Your task to perform on an android device: Clear the shopping cart on costco. Add panasonic triple a to the cart on costco Image 0: 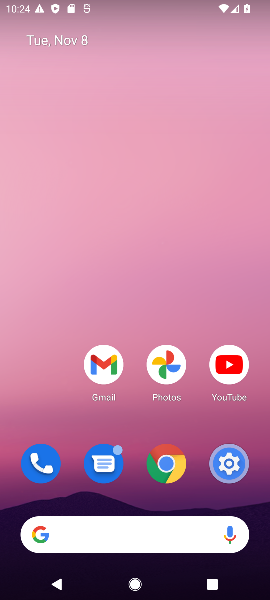
Step 0: click (166, 463)
Your task to perform on an android device: Clear the shopping cart on costco. Add panasonic triple a to the cart on costco Image 1: 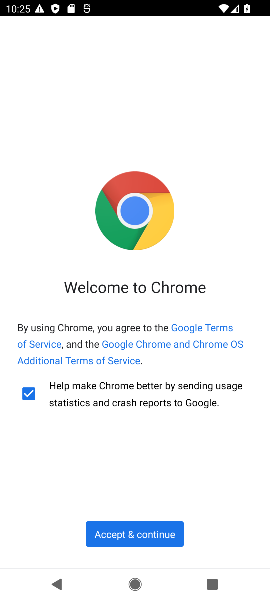
Step 1: click (167, 529)
Your task to perform on an android device: Clear the shopping cart on costco. Add panasonic triple a to the cart on costco Image 2: 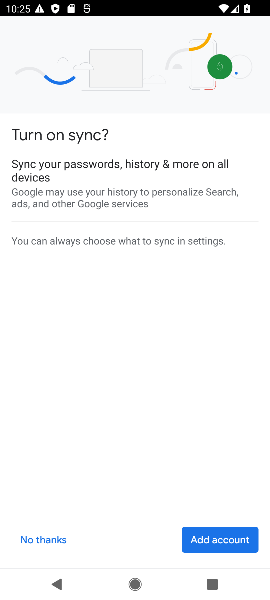
Step 2: click (223, 533)
Your task to perform on an android device: Clear the shopping cart on costco. Add panasonic triple a to the cart on costco Image 3: 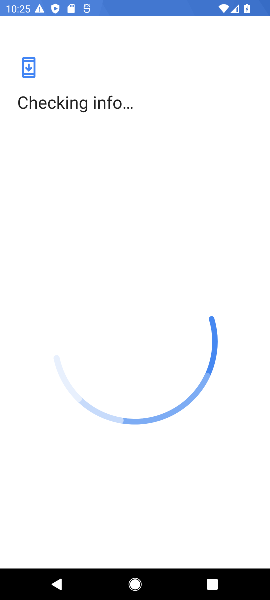
Step 3: press back button
Your task to perform on an android device: Clear the shopping cart on costco. Add panasonic triple a to the cart on costco Image 4: 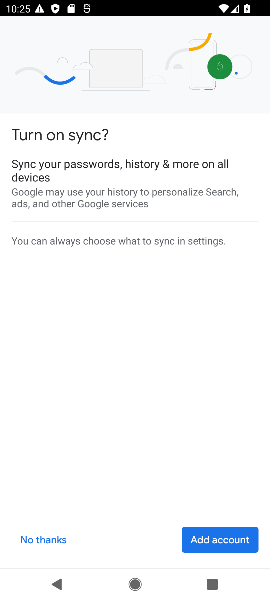
Step 4: click (43, 536)
Your task to perform on an android device: Clear the shopping cart on costco. Add panasonic triple a to the cart on costco Image 5: 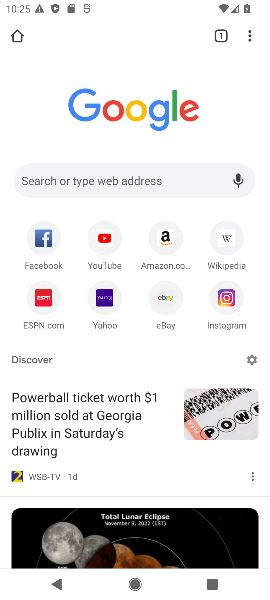
Step 5: click (121, 174)
Your task to perform on an android device: Clear the shopping cart on costco. Add panasonic triple a to the cart on costco Image 6: 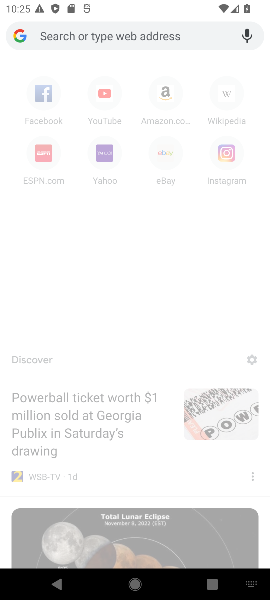
Step 6: type "costco"
Your task to perform on an android device: Clear the shopping cart on costco. Add panasonic triple a to the cart on costco Image 7: 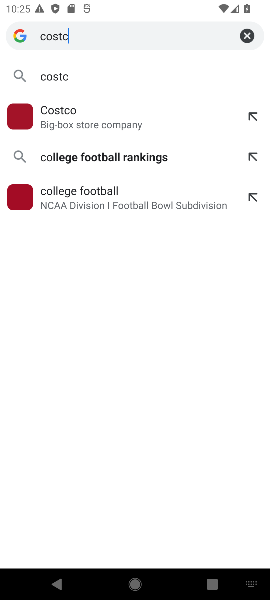
Step 7: press enter
Your task to perform on an android device: Clear the shopping cart on costco. Add panasonic triple a to the cart on costco Image 8: 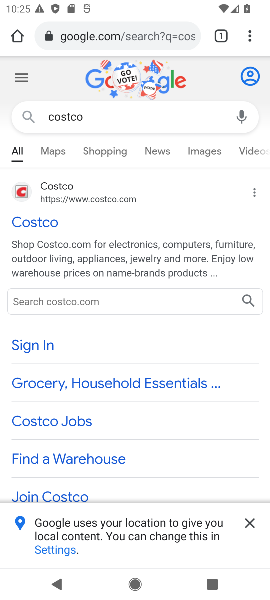
Step 8: click (89, 193)
Your task to perform on an android device: Clear the shopping cart on costco. Add panasonic triple a to the cart on costco Image 9: 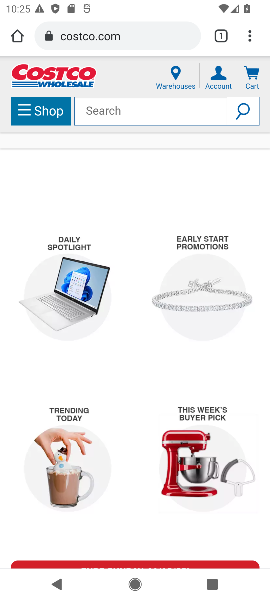
Step 9: click (254, 75)
Your task to perform on an android device: Clear the shopping cart on costco. Add panasonic triple a to the cart on costco Image 10: 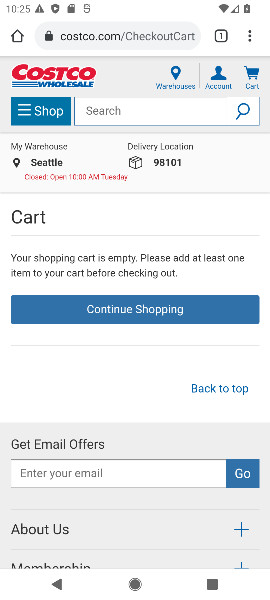
Step 10: click (181, 111)
Your task to perform on an android device: Clear the shopping cart on costco. Add panasonic triple a to the cart on costco Image 11: 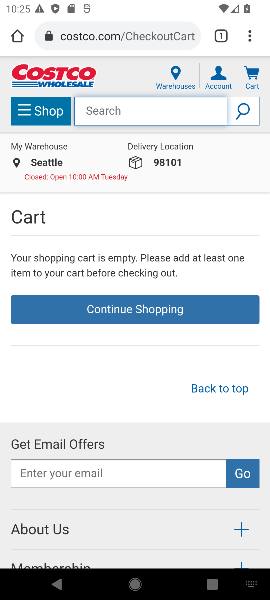
Step 11: type "panasonic triple a"
Your task to perform on an android device: Clear the shopping cart on costco. Add panasonic triple a to the cart on costco Image 12: 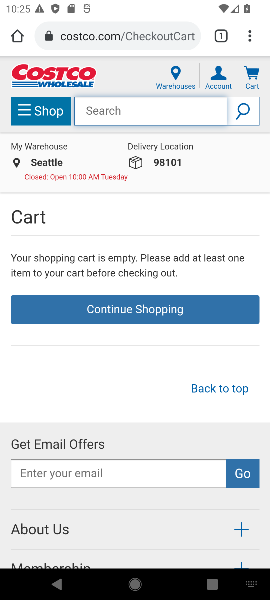
Step 12: press enter
Your task to perform on an android device: Clear the shopping cart on costco. Add panasonic triple a to the cart on costco Image 13: 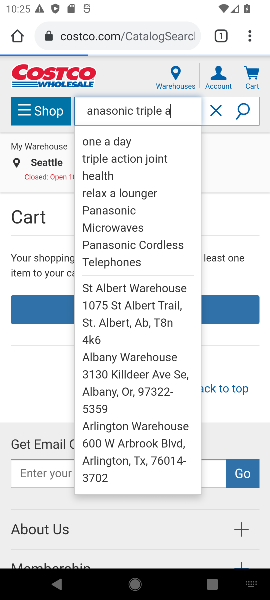
Step 13: click (227, 154)
Your task to perform on an android device: Clear the shopping cart on costco. Add panasonic triple a to the cart on costco Image 14: 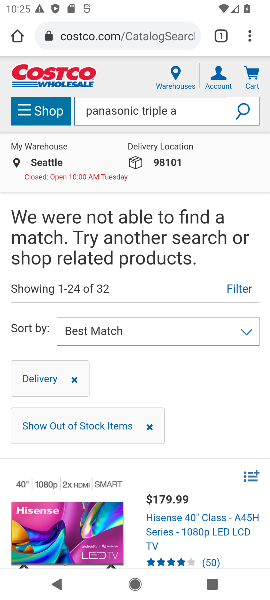
Step 14: task complete